Your task to perform on an android device: Toggle the flashlight Image 0: 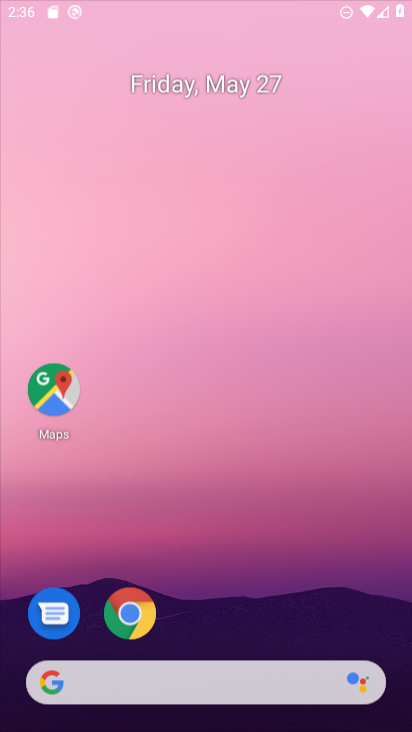
Step 0: press home button
Your task to perform on an android device: Toggle the flashlight Image 1: 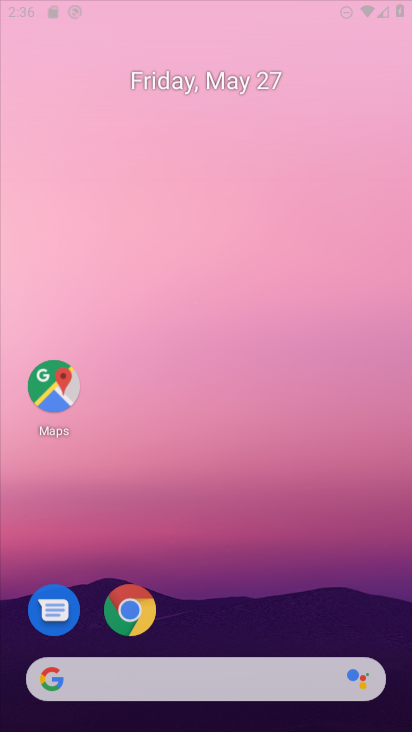
Step 1: task complete